Your task to perform on an android device: turn on the 12-hour format for clock Image 0: 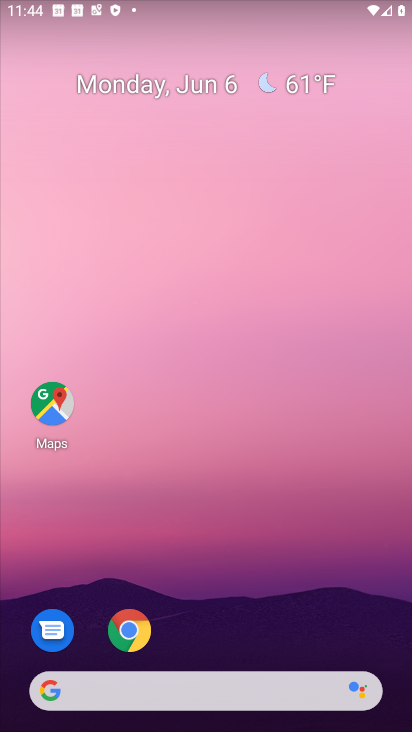
Step 0: drag from (336, 590) to (317, 204)
Your task to perform on an android device: turn on the 12-hour format for clock Image 1: 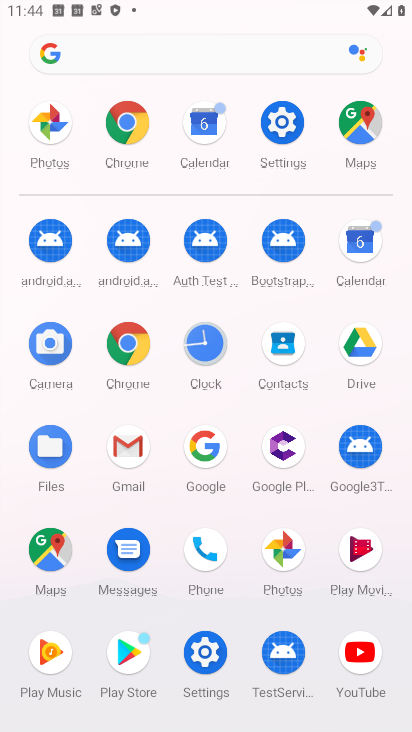
Step 1: click (208, 343)
Your task to perform on an android device: turn on the 12-hour format for clock Image 2: 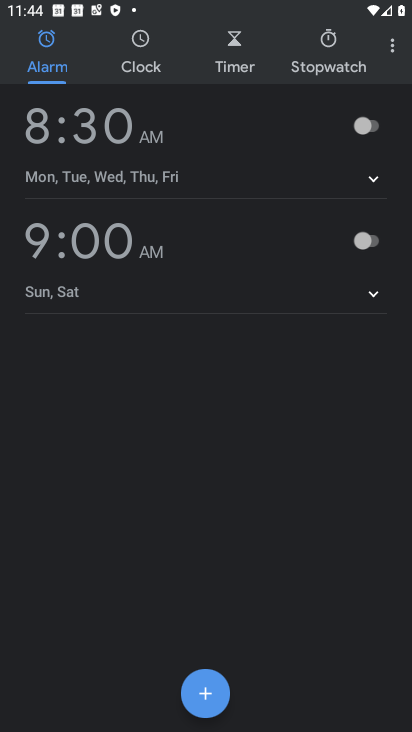
Step 2: drag from (390, 51) to (295, 97)
Your task to perform on an android device: turn on the 12-hour format for clock Image 3: 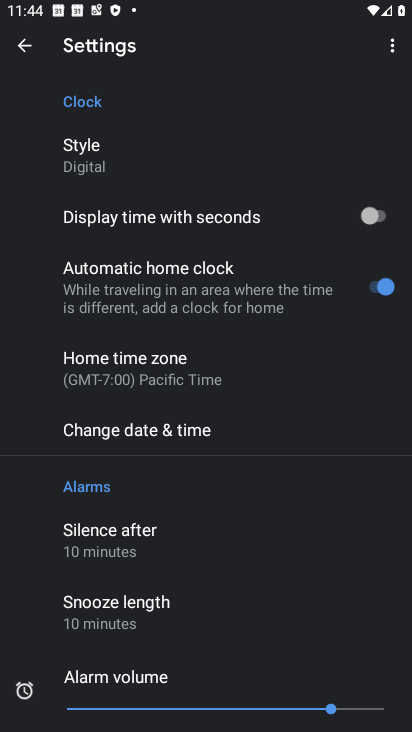
Step 3: click (215, 439)
Your task to perform on an android device: turn on the 12-hour format for clock Image 4: 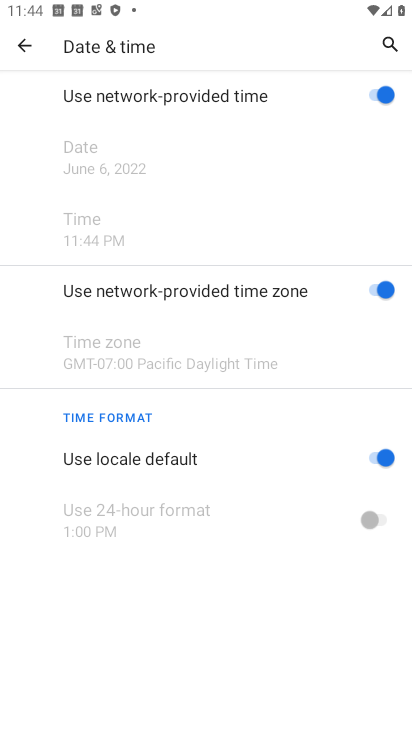
Step 4: task complete